Your task to perform on an android device: Search for the most popular coffee table on Crate & Barrel Image 0: 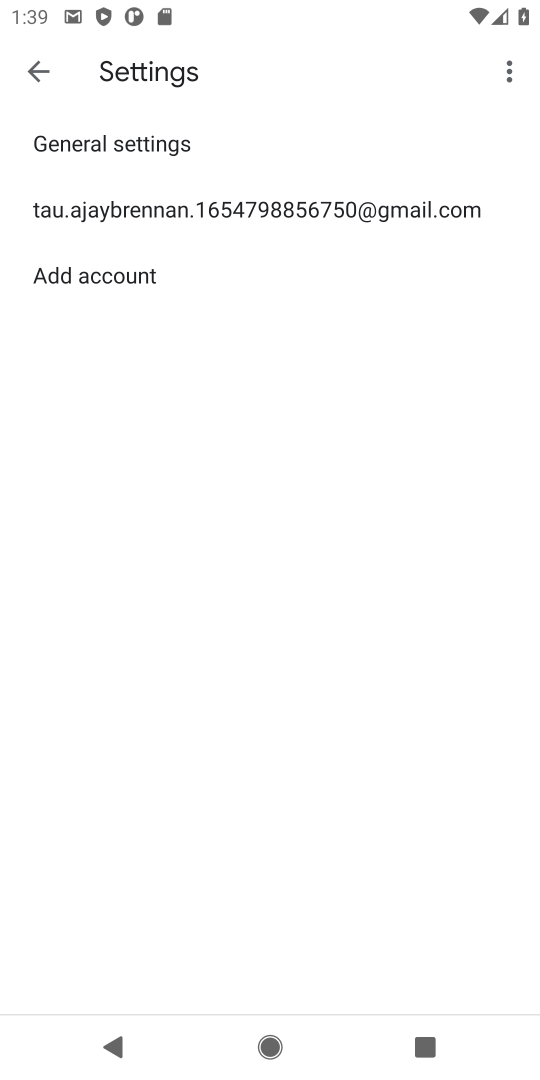
Step 0: press home button
Your task to perform on an android device: Search for the most popular coffee table on Crate & Barrel Image 1: 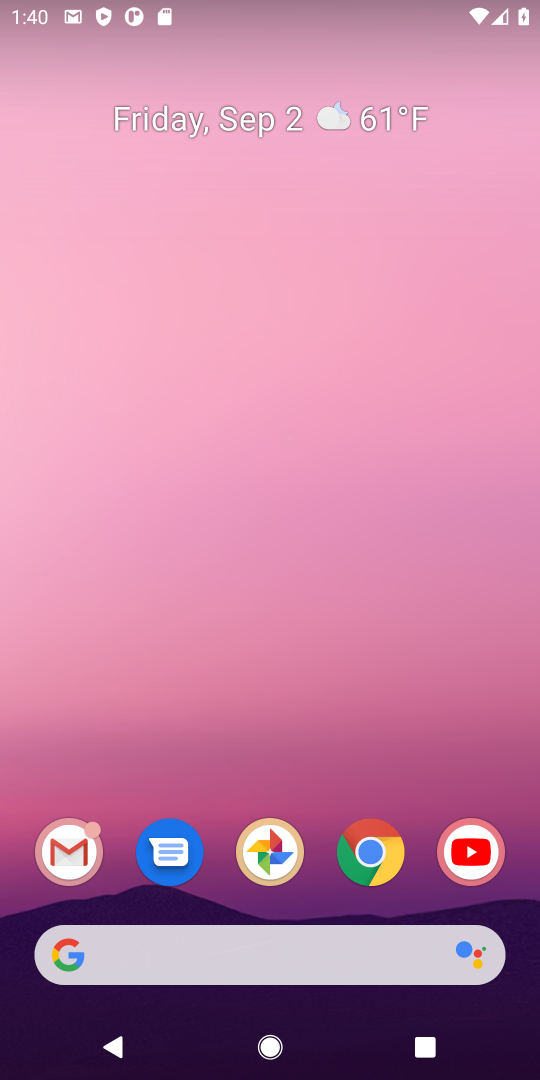
Step 1: drag from (269, 786) to (240, 152)
Your task to perform on an android device: Search for the most popular coffee table on Crate & Barrel Image 2: 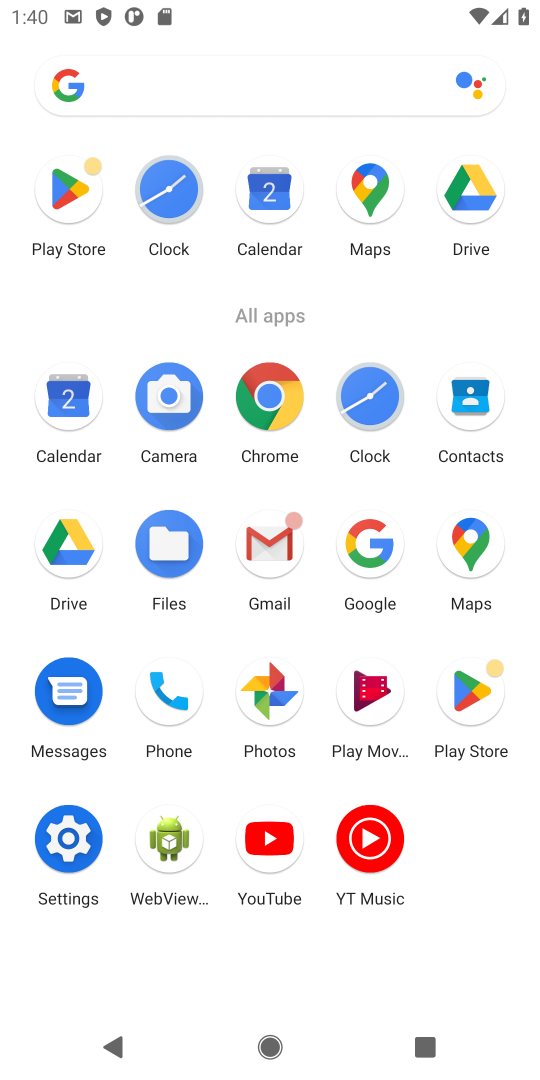
Step 2: click (279, 399)
Your task to perform on an android device: Search for the most popular coffee table on Crate & Barrel Image 3: 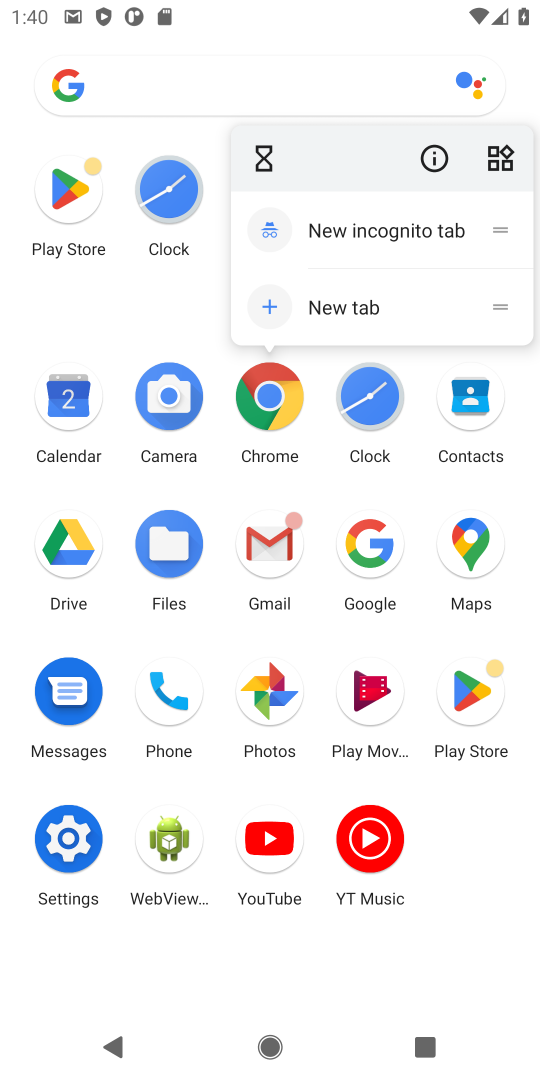
Step 3: click (283, 395)
Your task to perform on an android device: Search for the most popular coffee table on Crate & Barrel Image 4: 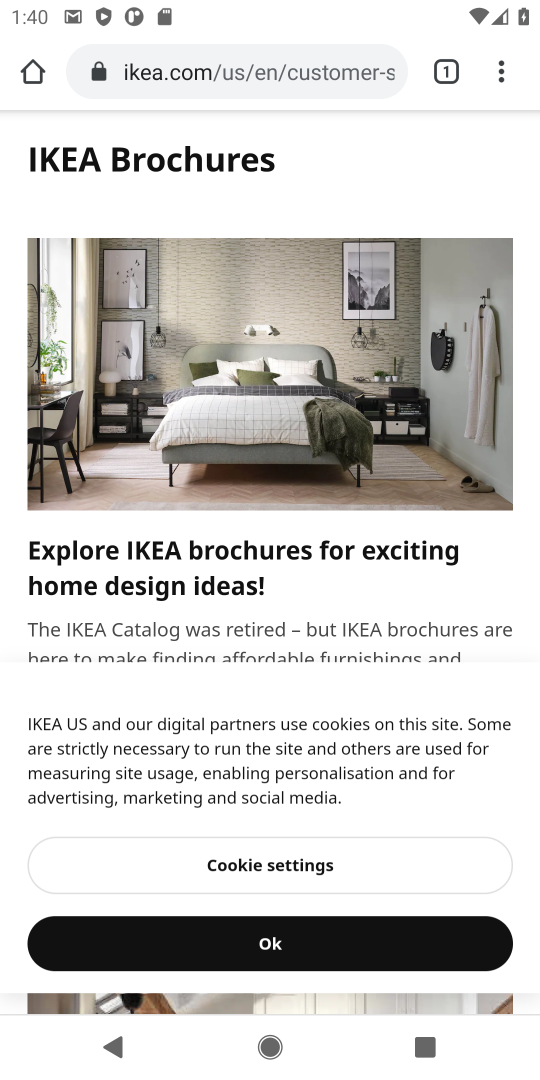
Step 4: click (208, 70)
Your task to perform on an android device: Search for the most popular coffee table on Crate & Barrel Image 5: 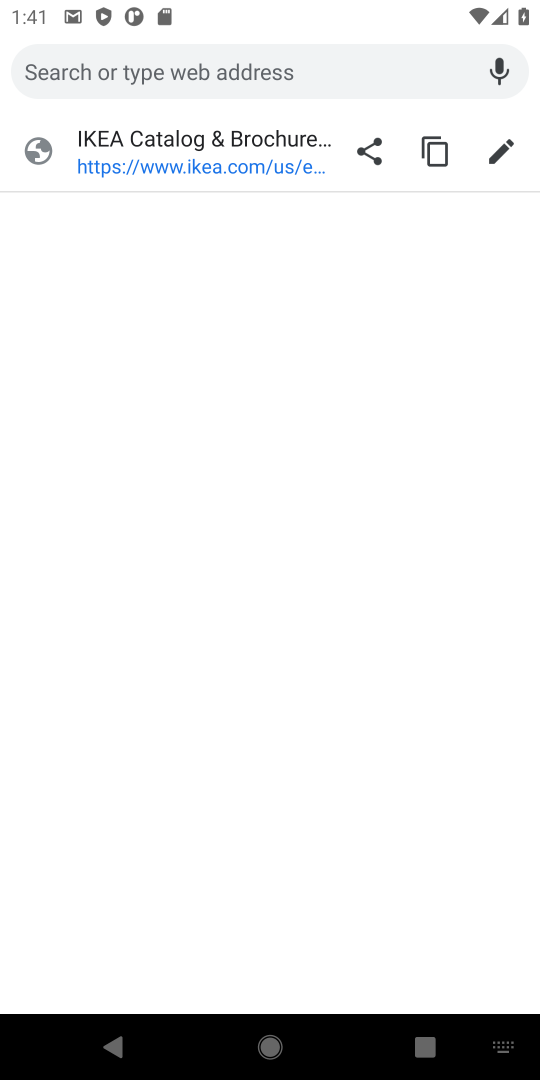
Step 5: type "most popular coffee table on Crate & Barrel"
Your task to perform on an android device: Search for the most popular coffee table on Crate & Barrel Image 6: 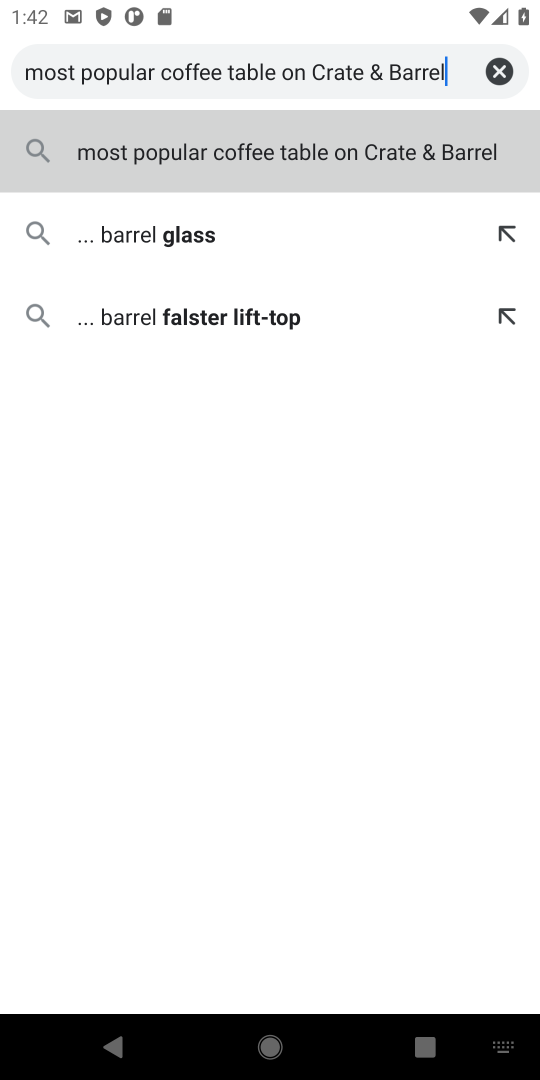
Step 6: press enter
Your task to perform on an android device: Search for the most popular coffee table on Crate & Barrel Image 7: 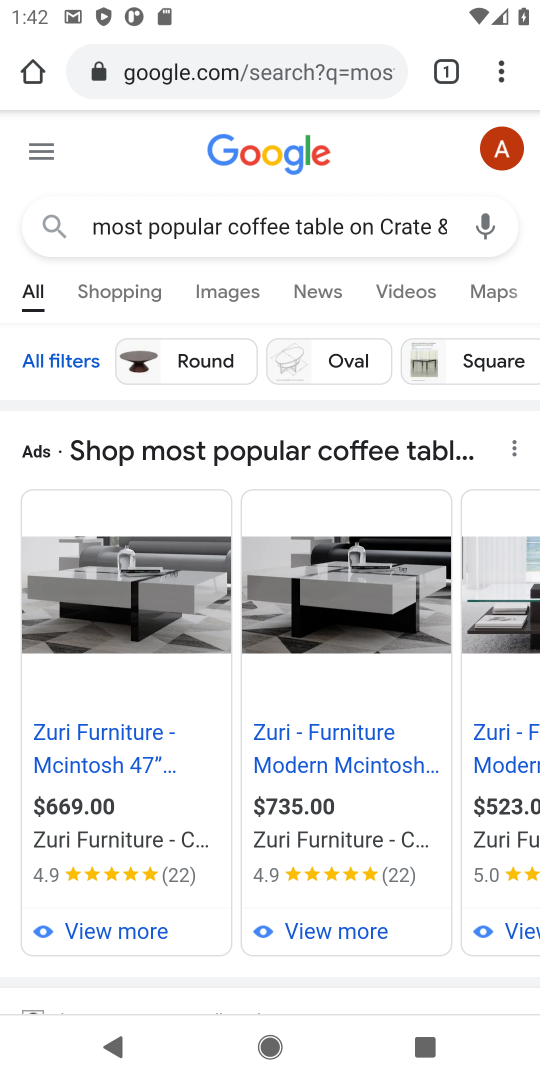
Step 7: drag from (268, 975) to (308, 361)
Your task to perform on an android device: Search for the most popular coffee table on Crate & Barrel Image 8: 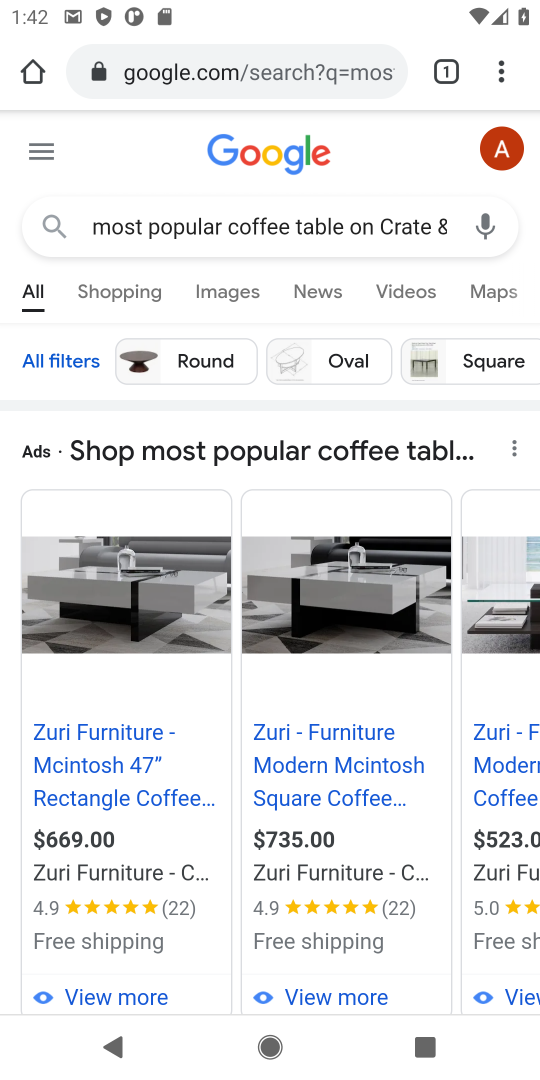
Step 8: drag from (235, 795) to (335, 227)
Your task to perform on an android device: Search for the most popular coffee table on Crate & Barrel Image 9: 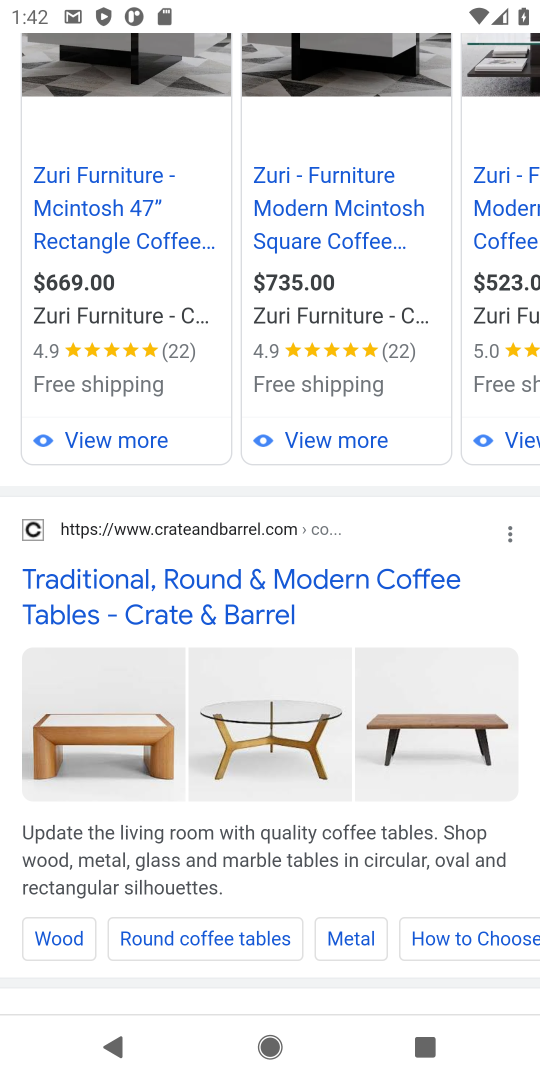
Step 9: click (166, 585)
Your task to perform on an android device: Search for the most popular coffee table on Crate & Barrel Image 10: 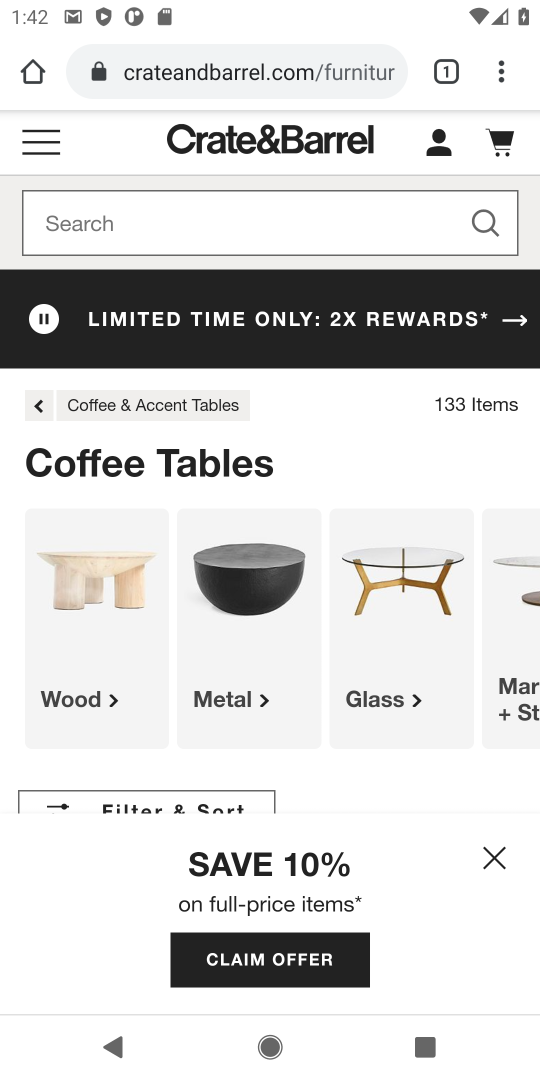
Step 10: drag from (441, 334) to (470, 140)
Your task to perform on an android device: Search for the most popular coffee table on Crate & Barrel Image 11: 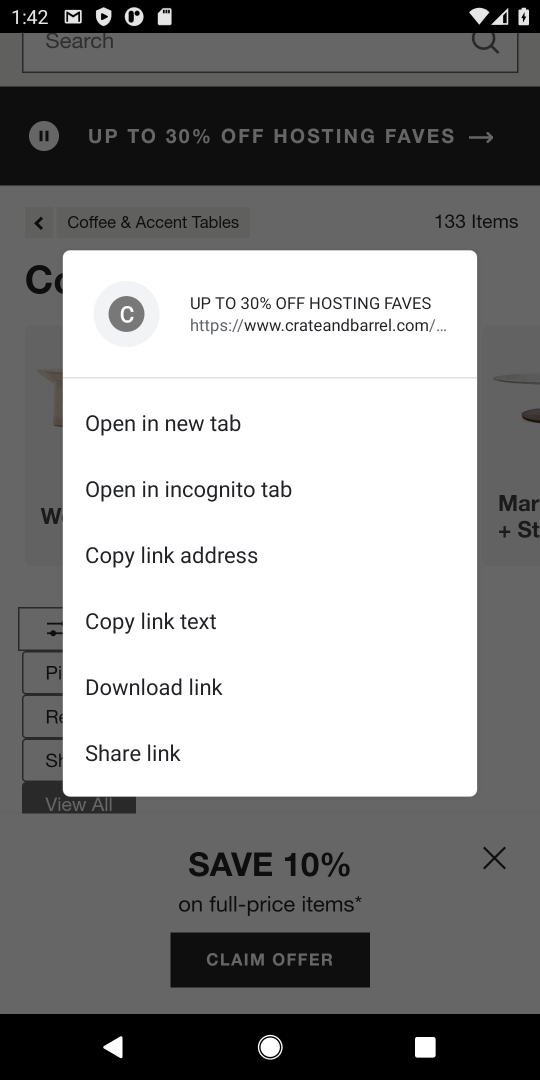
Step 11: click (367, 221)
Your task to perform on an android device: Search for the most popular coffee table on Crate & Barrel Image 12: 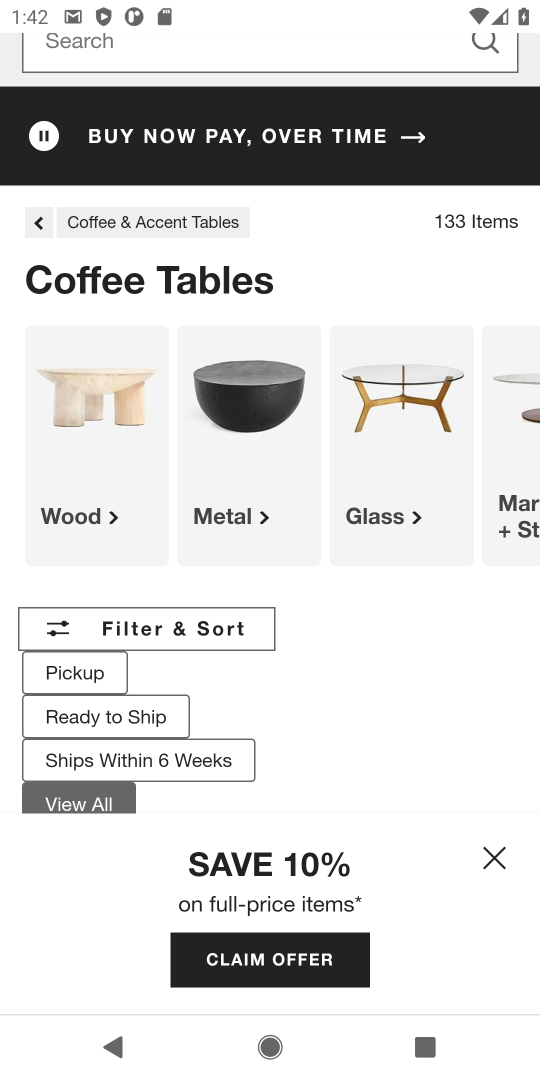
Step 12: task complete